Your task to perform on an android device: delete a single message in the gmail app Image 0: 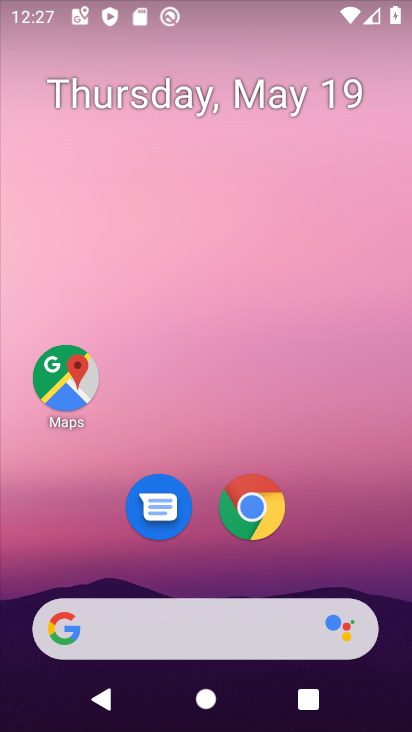
Step 0: drag from (202, 542) to (252, 101)
Your task to perform on an android device: delete a single message in the gmail app Image 1: 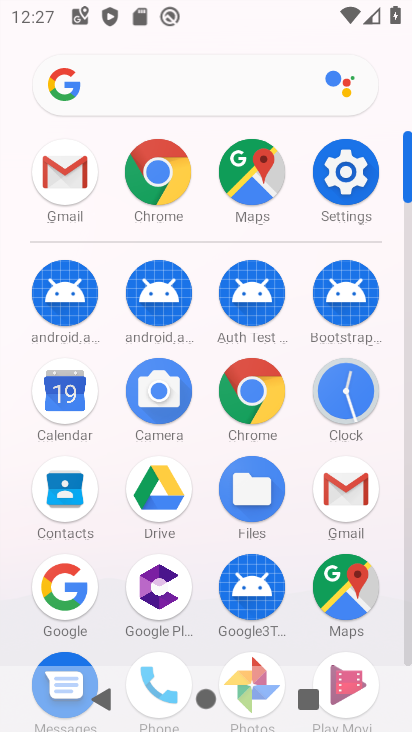
Step 1: click (337, 502)
Your task to perform on an android device: delete a single message in the gmail app Image 2: 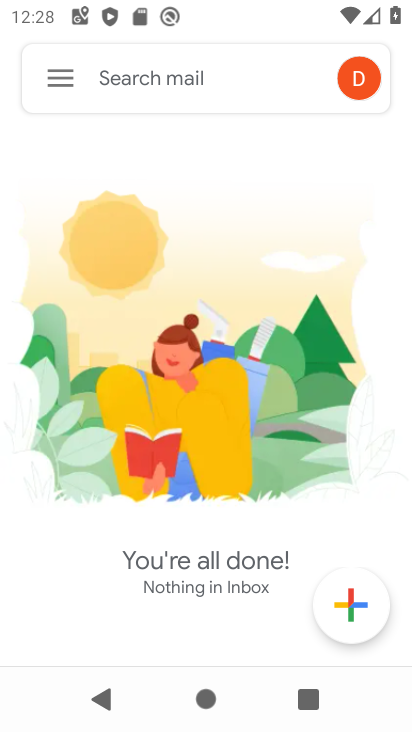
Step 2: click (71, 76)
Your task to perform on an android device: delete a single message in the gmail app Image 3: 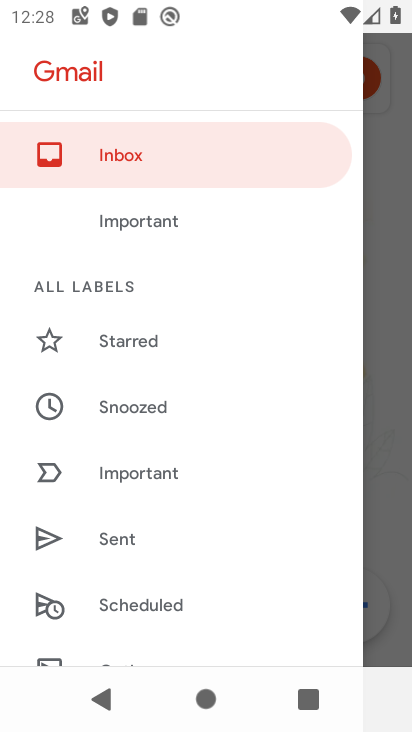
Step 3: drag from (160, 495) to (173, 272)
Your task to perform on an android device: delete a single message in the gmail app Image 4: 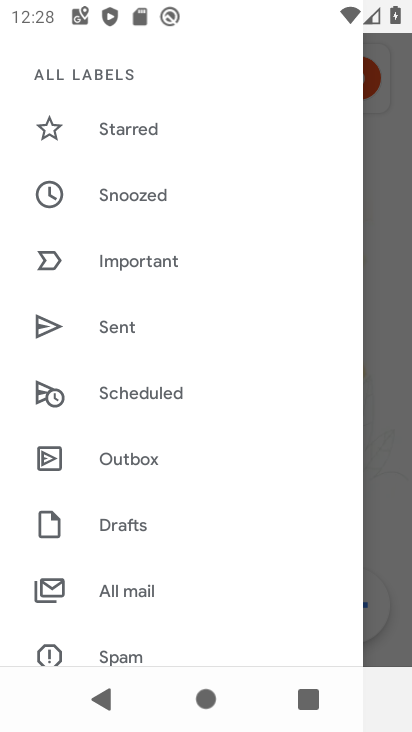
Step 4: drag from (183, 511) to (184, 380)
Your task to perform on an android device: delete a single message in the gmail app Image 5: 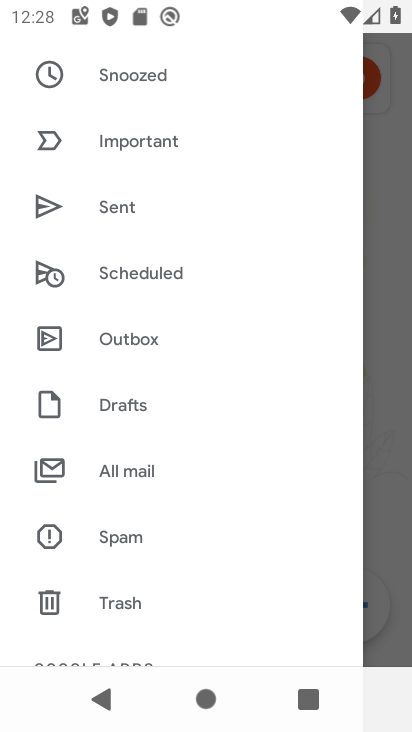
Step 5: click (133, 481)
Your task to perform on an android device: delete a single message in the gmail app Image 6: 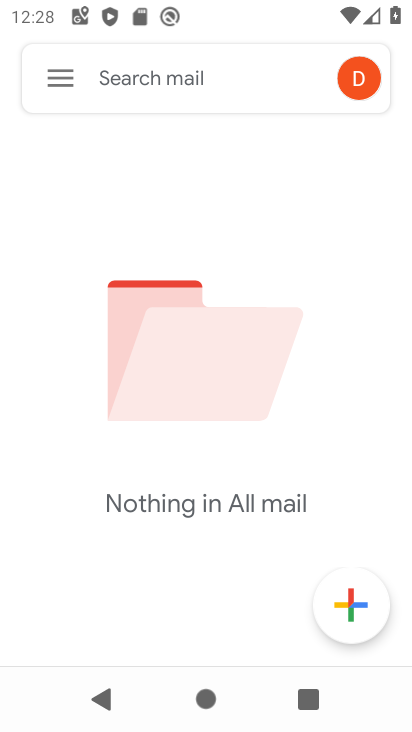
Step 6: task complete